Your task to perform on an android device: Go to sound settings Image 0: 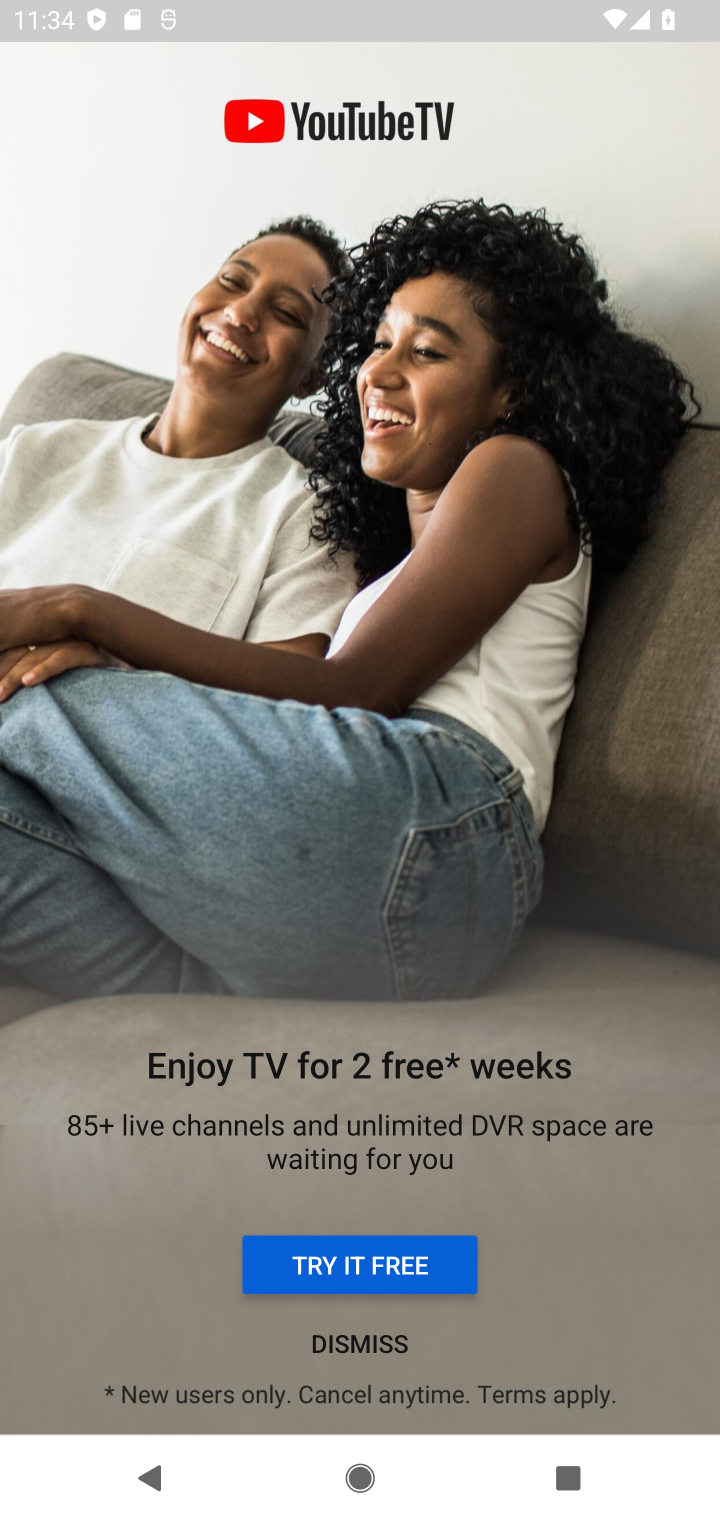
Step 0: press home button
Your task to perform on an android device: Go to sound settings Image 1: 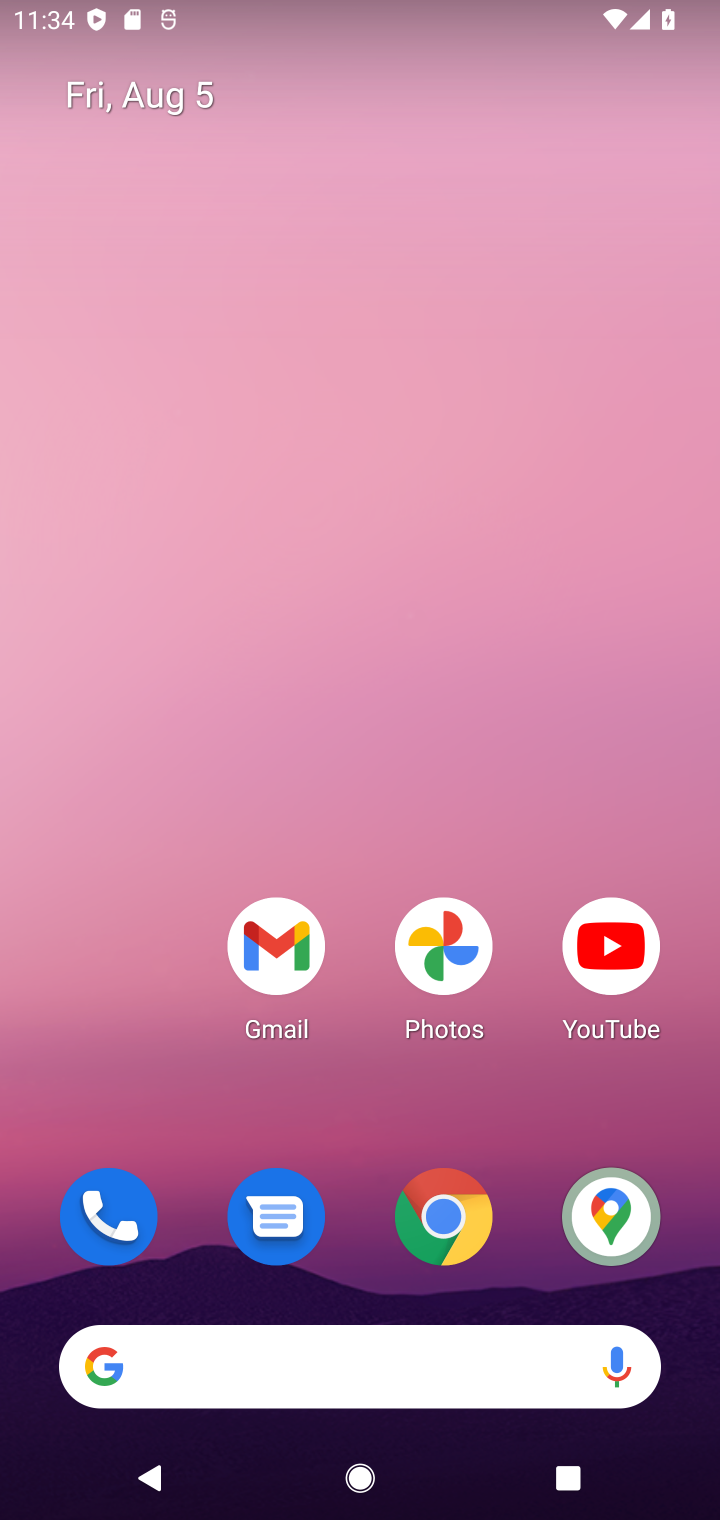
Step 1: drag from (149, 1076) to (357, 20)
Your task to perform on an android device: Go to sound settings Image 2: 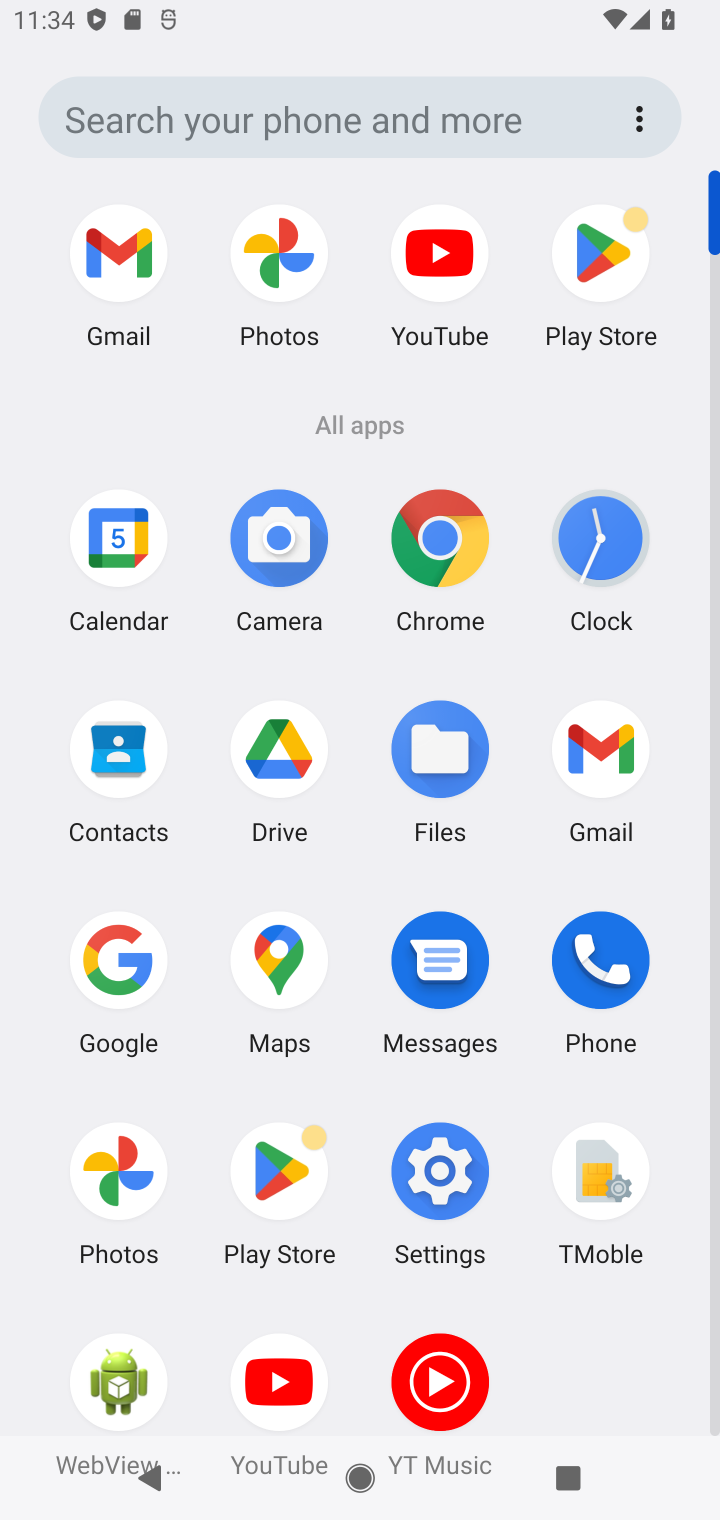
Step 2: click (424, 1178)
Your task to perform on an android device: Go to sound settings Image 3: 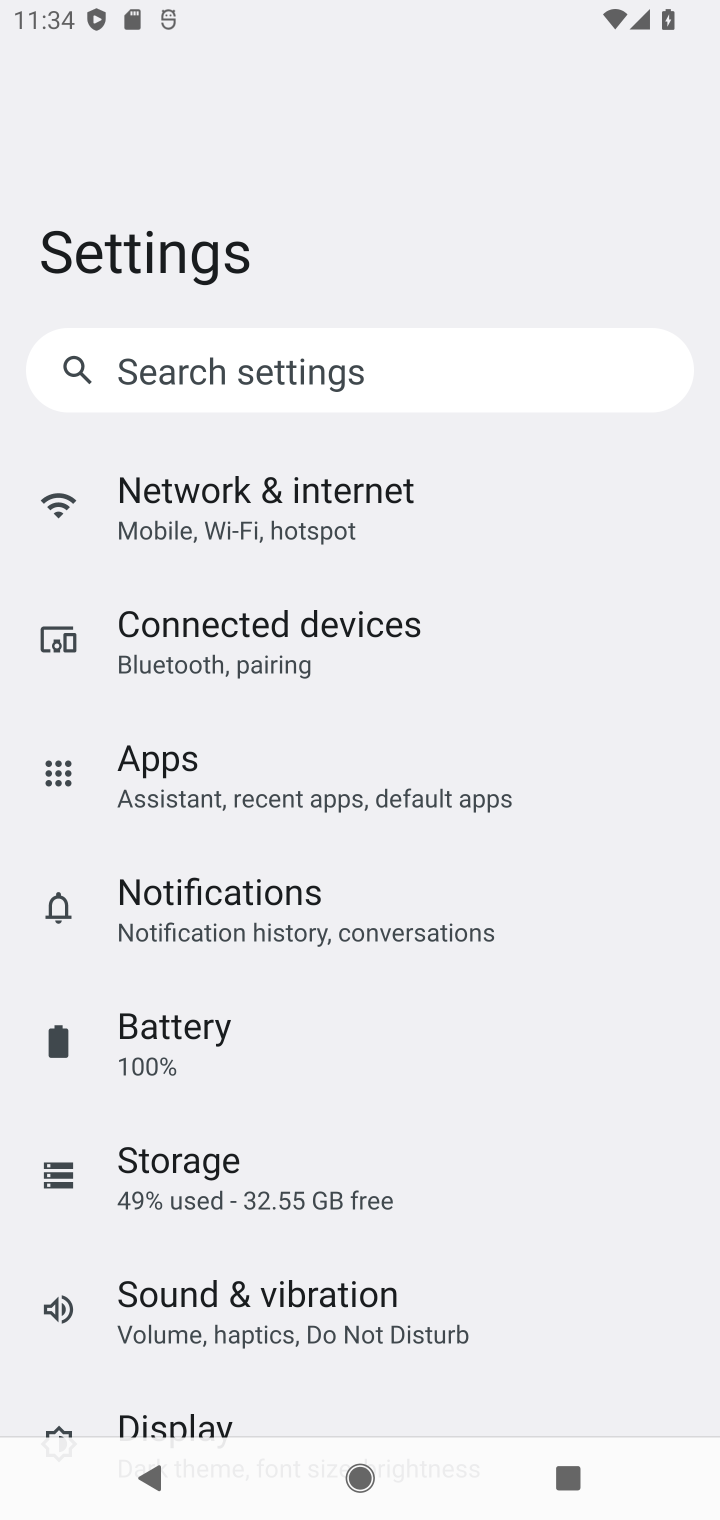
Step 3: drag from (389, 1104) to (536, 7)
Your task to perform on an android device: Go to sound settings Image 4: 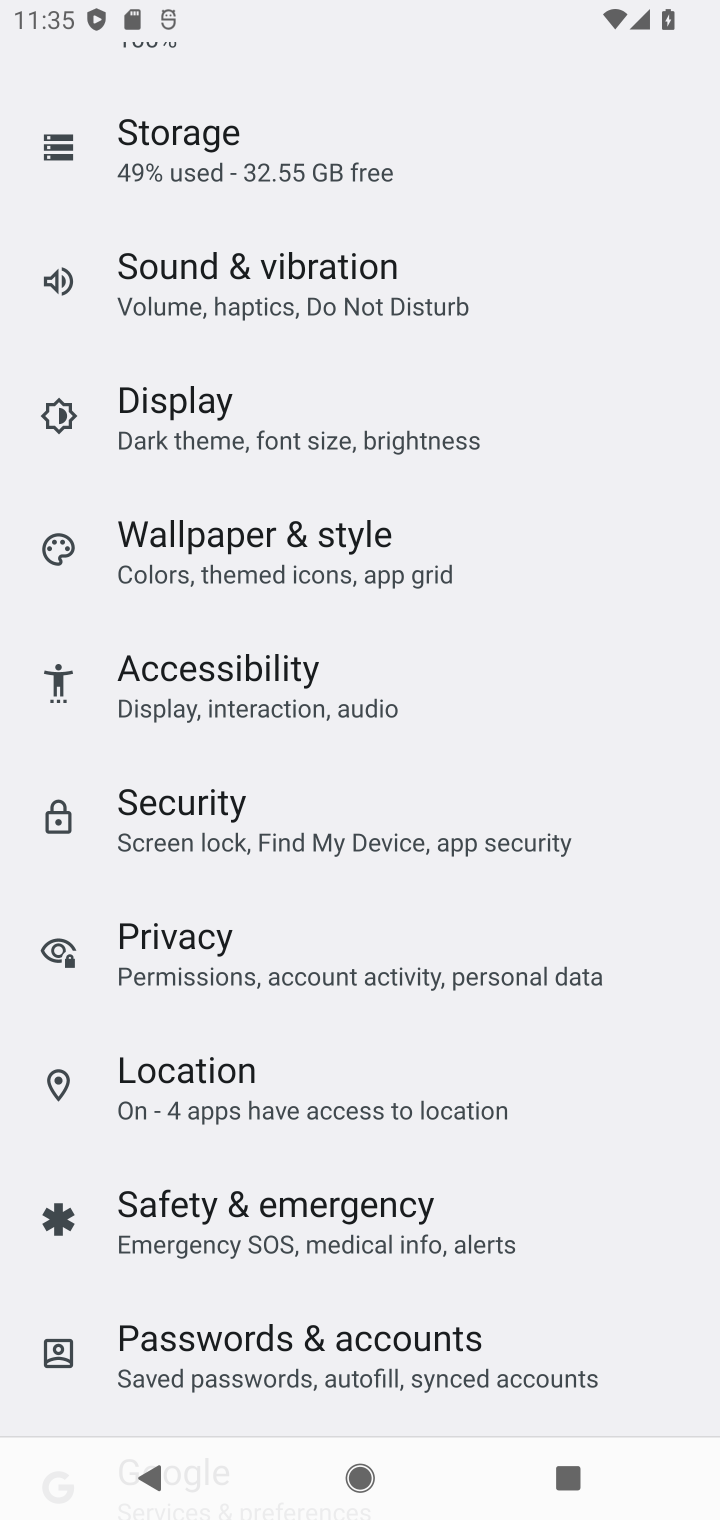
Step 4: click (334, 296)
Your task to perform on an android device: Go to sound settings Image 5: 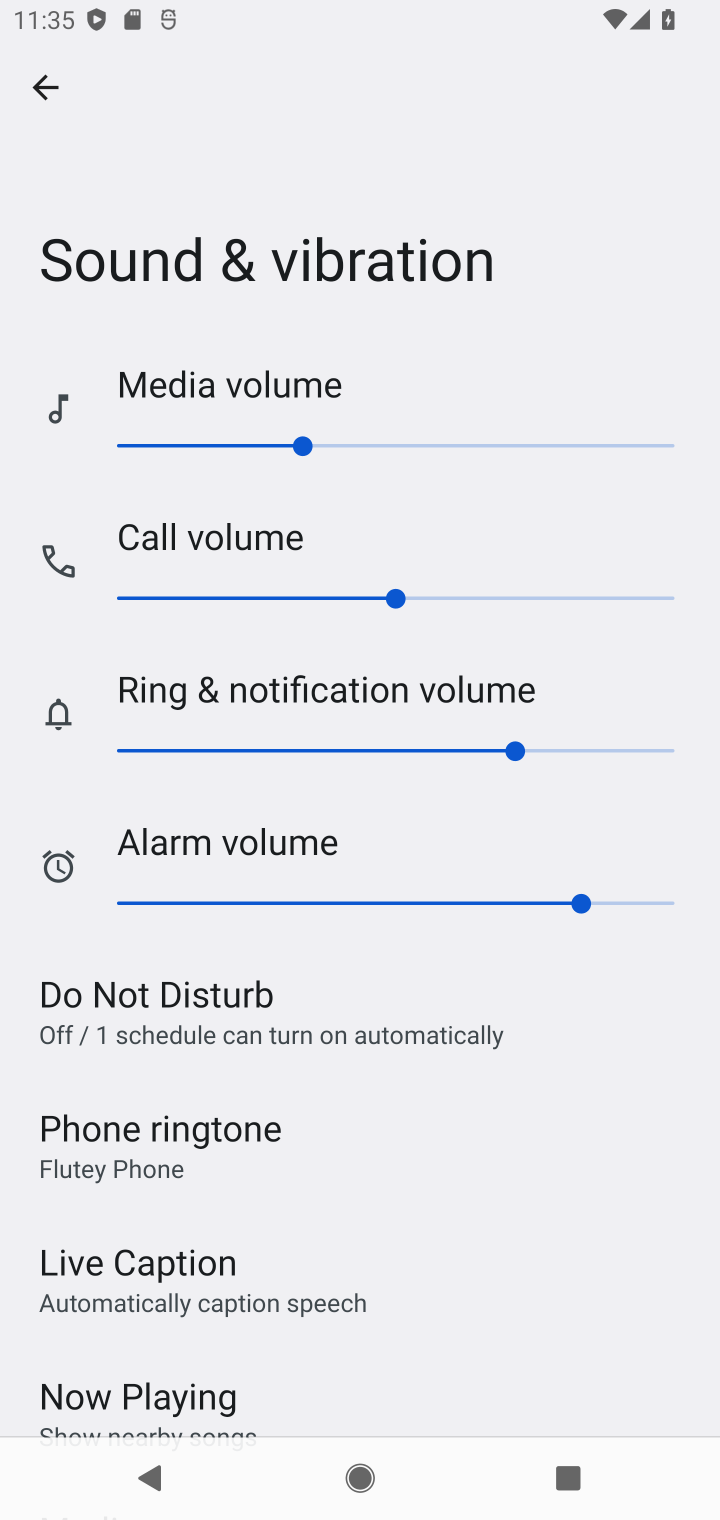
Step 5: task complete